Your task to perform on an android device: clear history in the chrome app Image 0: 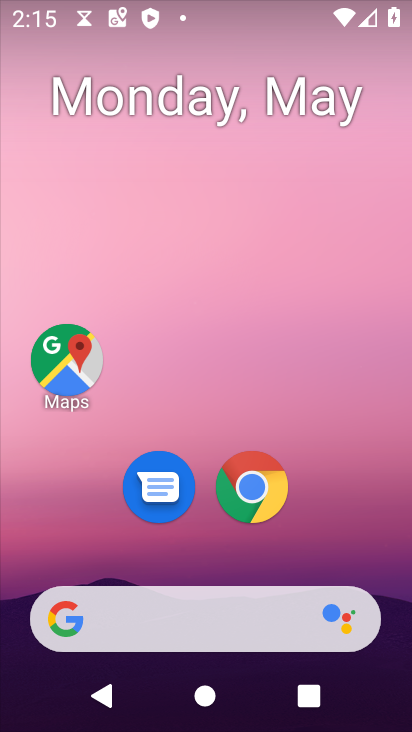
Step 0: click (271, 480)
Your task to perform on an android device: clear history in the chrome app Image 1: 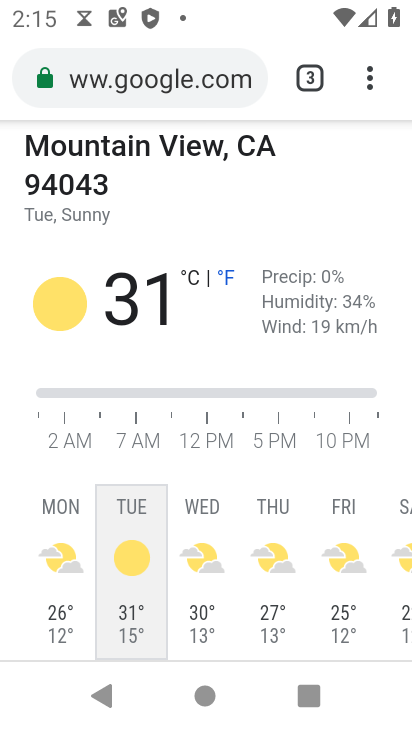
Step 1: click (371, 66)
Your task to perform on an android device: clear history in the chrome app Image 2: 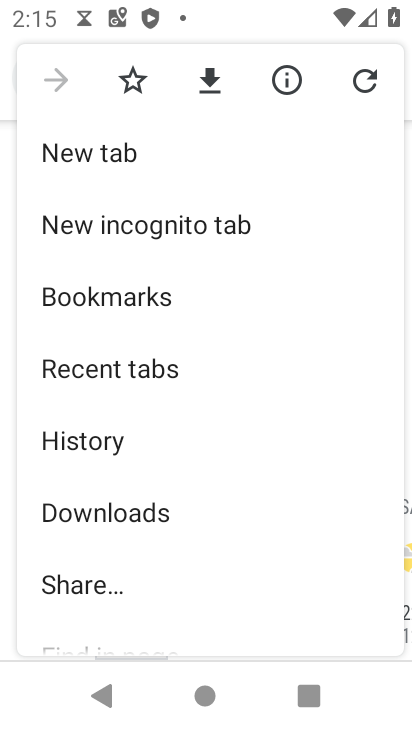
Step 2: click (171, 435)
Your task to perform on an android device: clear history in the chrome app Image 3: 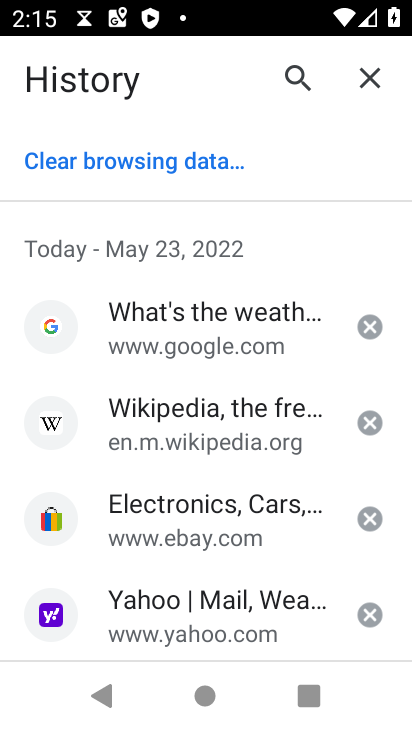
Step 3: click (157, 166)
Your task to perform on an android device: clear history in the chrome app Image 4: 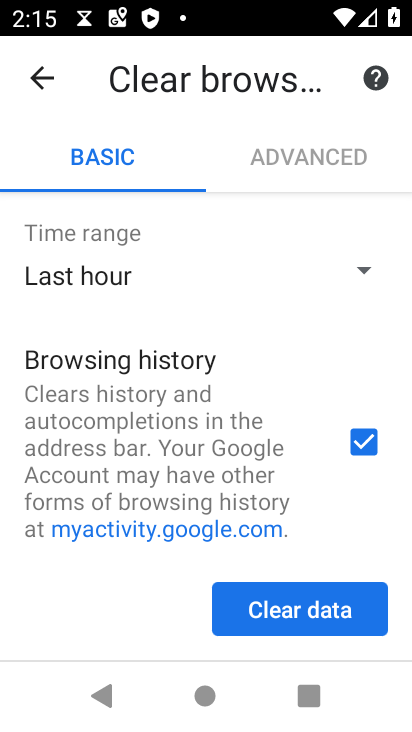
Step 4: click (309, 608)
Your task to perform on an android device: clear history in the chrome app Image 5: 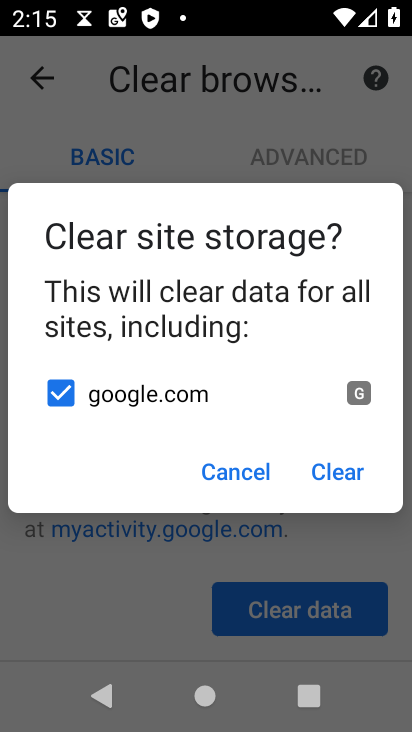
Step 5: click (338, 482)
Your task to perform on an android device: clear history in the chrome app Image 6: 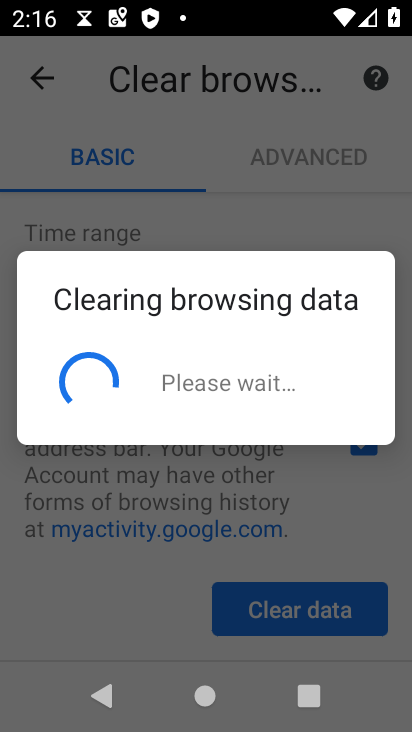
Step 6: task complete